Your task to perform on an android device: turn off wifi Image 0: 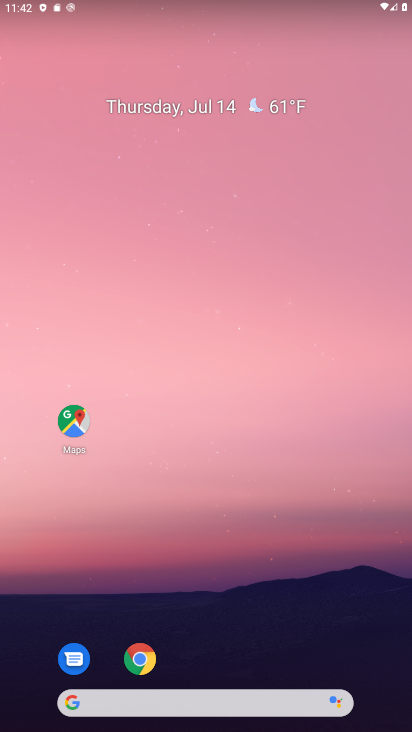
Step 0: drag from (181, 703) to (146, 217)
Your task to perform on an android device: turn off wifi Image 1: 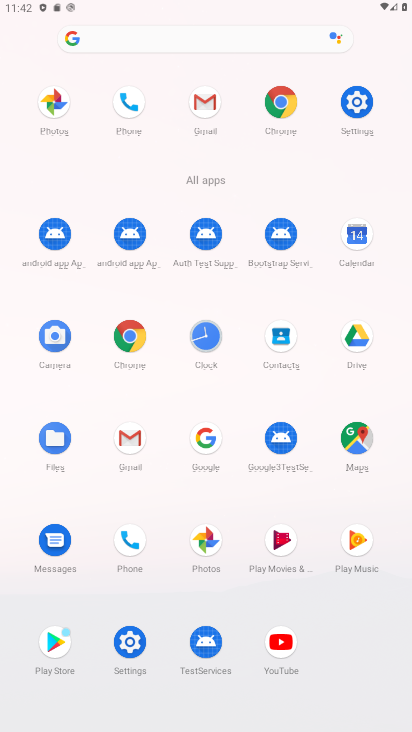
Step 1: click (358, 99)
Your task to perform on an android device: turn off wifi Image 2: 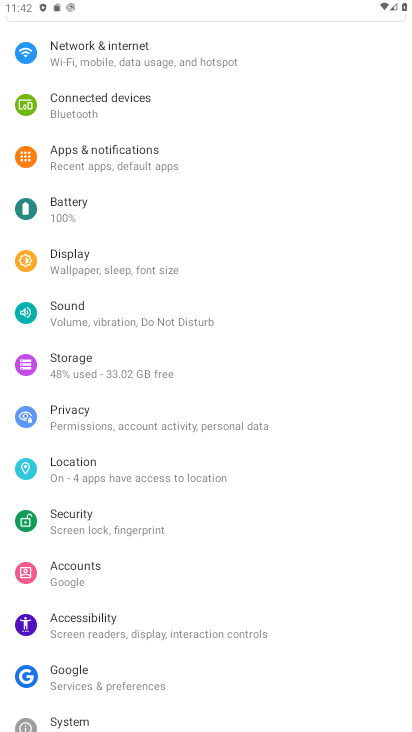
Step 2: click (210, 62)
Your task to perform on an android device: turn off wifi Image 3: 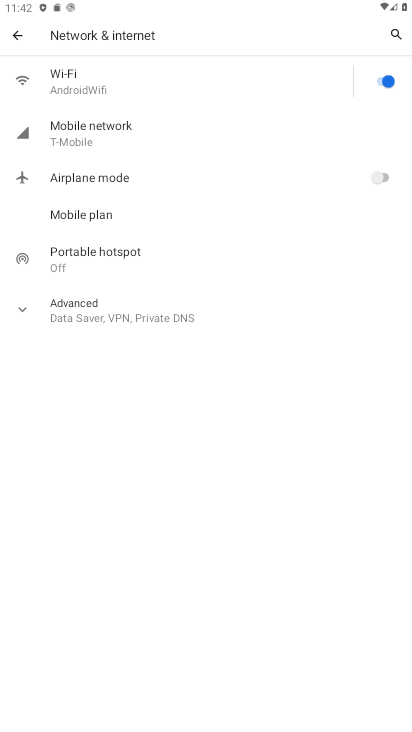
Step 3: click (382, 79)
Your task to perform on an android device: turn off wifi Image 4: 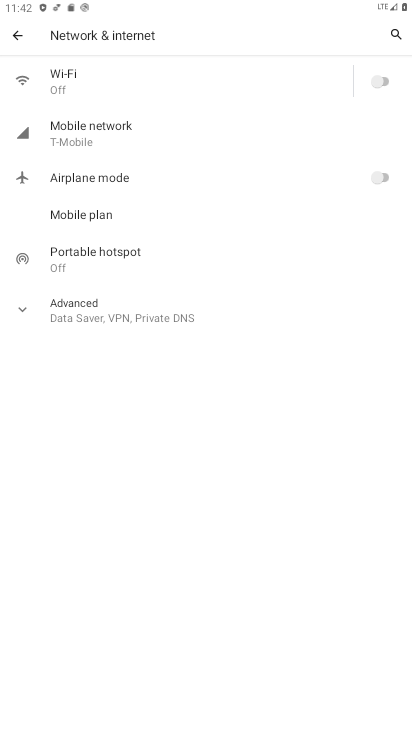
Step 4: task complete